Your task to perform on an android device: Go to Reddit.com Image 0: 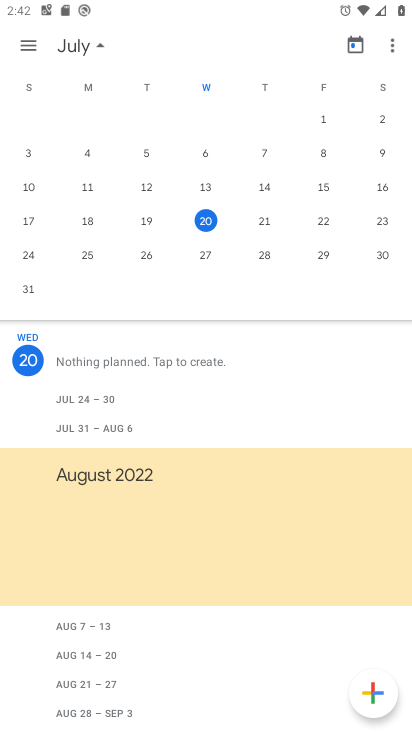
Step 0: press home button
Your task to perform on an android device: Go to Reddit.com Image 1: 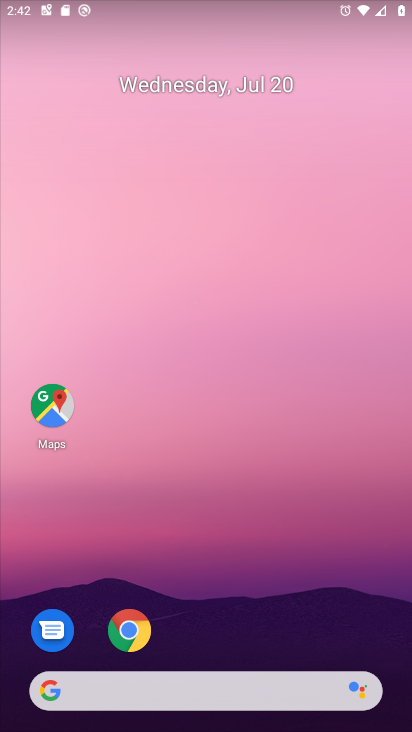
Step 1: drag from (237, 691) to (228, 125)
Your task to perform on an android device: Go to Reddit.com Image 2: 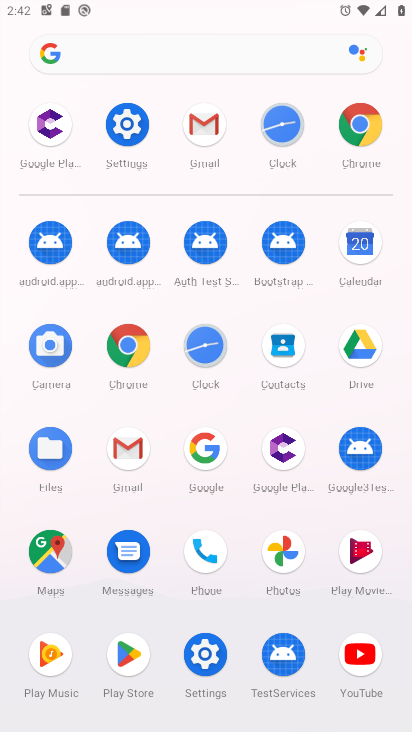
Step 2: click (368, 147)
Your task to perform on an android device: Go to Reddit.com Image 3: 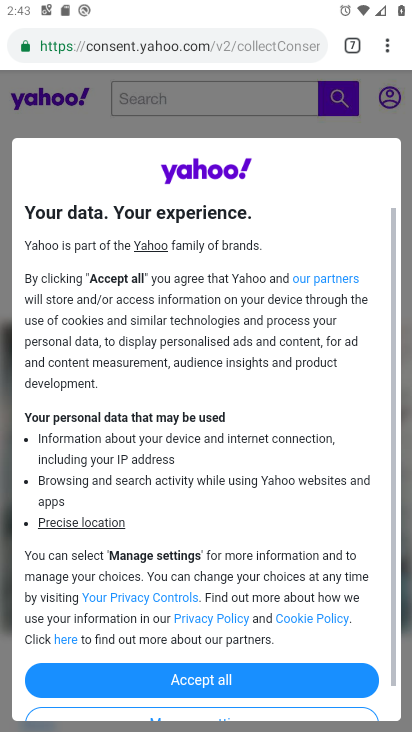
Step 3: click (284, 45)
Your task to perform on an android device: Go to Reddit.com Image 4: 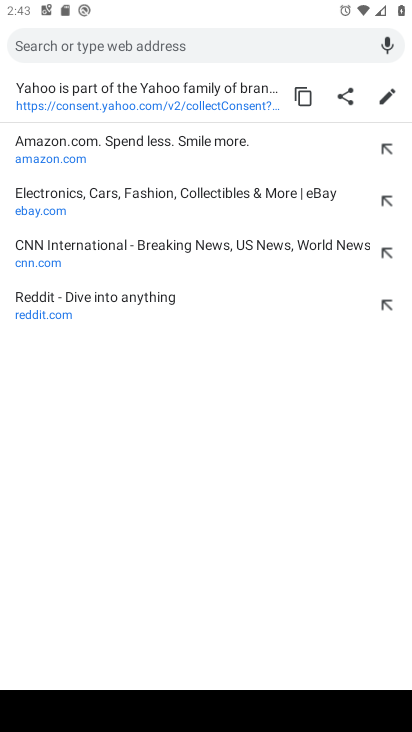
Step 4: click (145, 301)
Your task to perform on an android device: Go to Reddit.com Image 5: 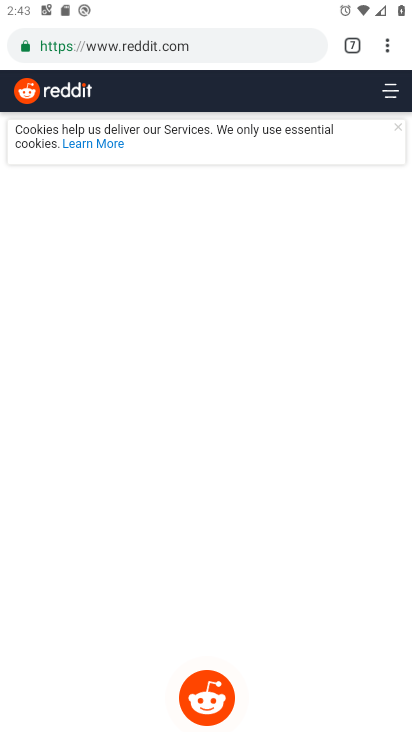
Step 5: task complete